Your task to perform on an android device: Open Google Maps and go to "Timeline" Image 0: 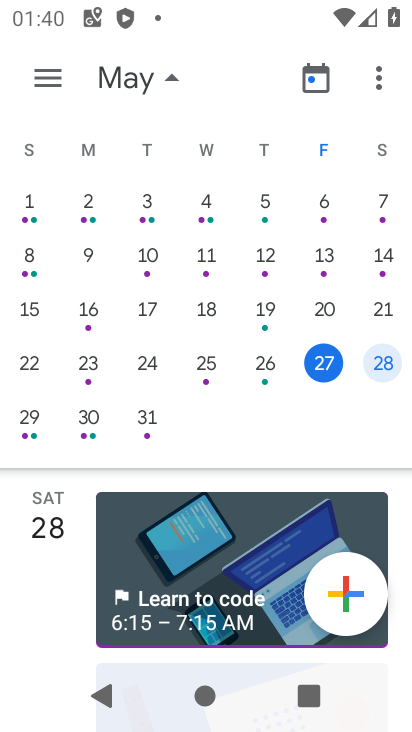
Step 0: press home button
Your task to perform on an android device: Open Google Maps and go to "Timeline" Image 1: 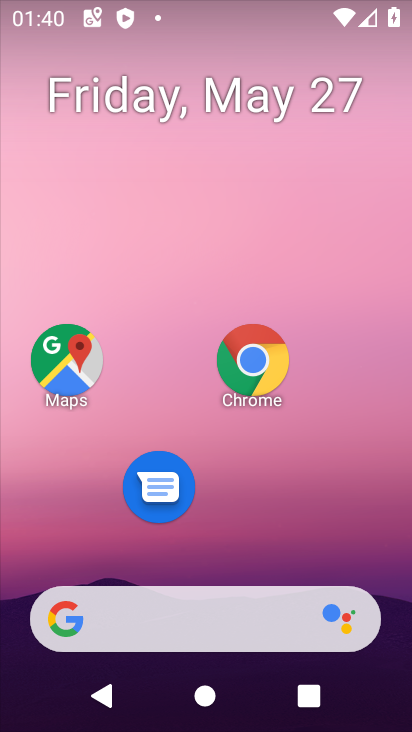
Step 1: click (70, 367)
Your task to perform on an android device: Open Google Maps and go to "Timeline" Image 2: 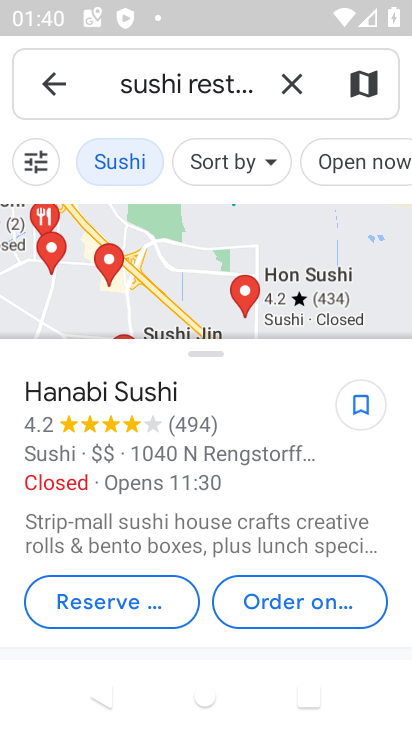
Step 2: click (283, 77)
Your task to perform on an android device: Open Google Maps and go to "Timeline" Image 3: 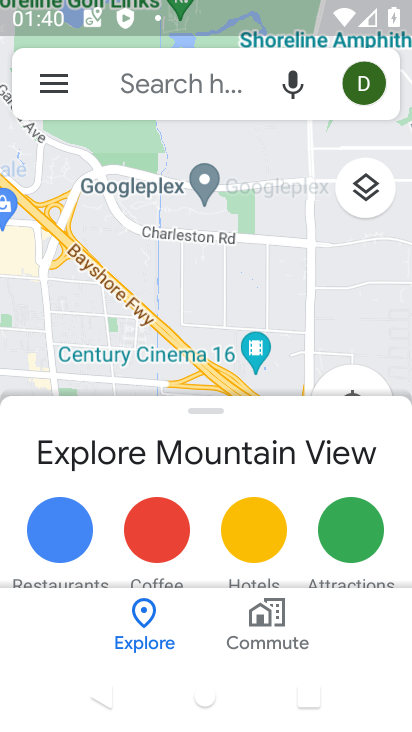
Step 3: click (44, 83)
Your task to perform on an android device: Open Google Maps and go to "Timeline" Image 4: 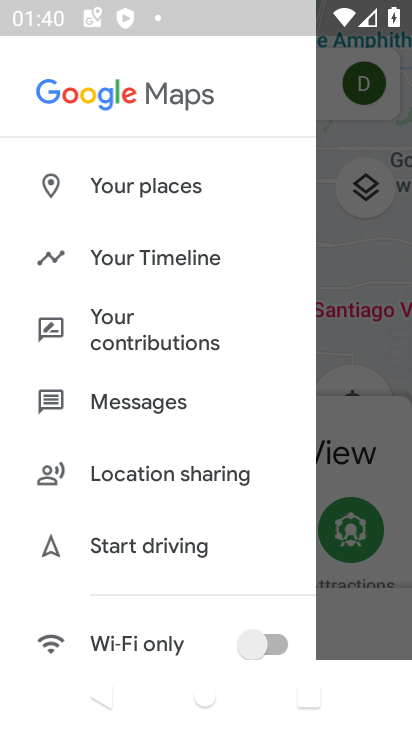
Step 4: click (131, 250)
Your task to perform on an android device: Open Google Maps and go to "Timeline" Image 5: 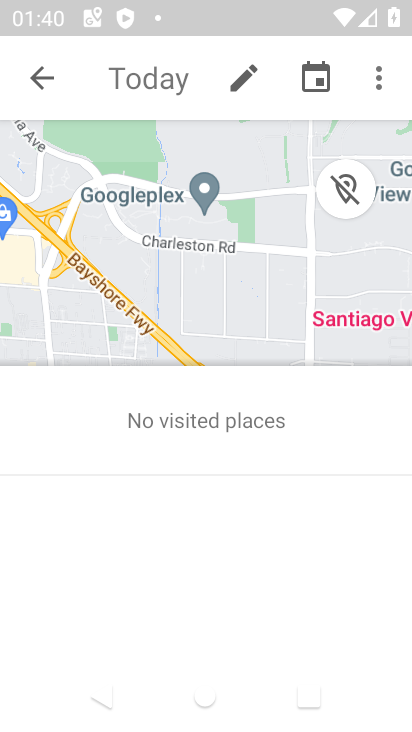
Step 5: task complete